Your task to perform on an android device: turn pop-ups on in chrome Image 0: 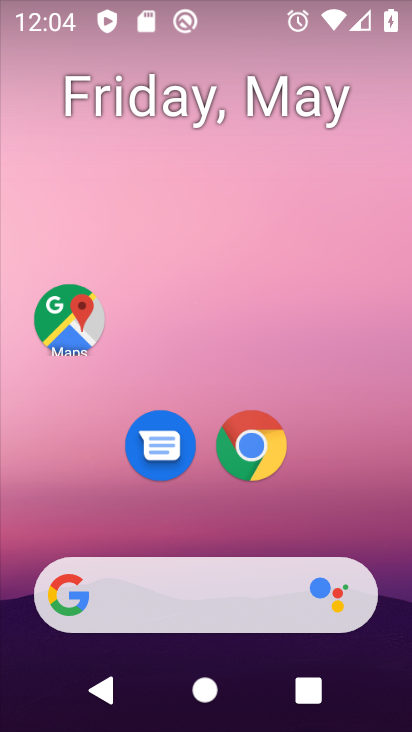
Step 0: click (253, 451)
Your task to perform on an android device: turn pop-ups on in chrome Image 1: 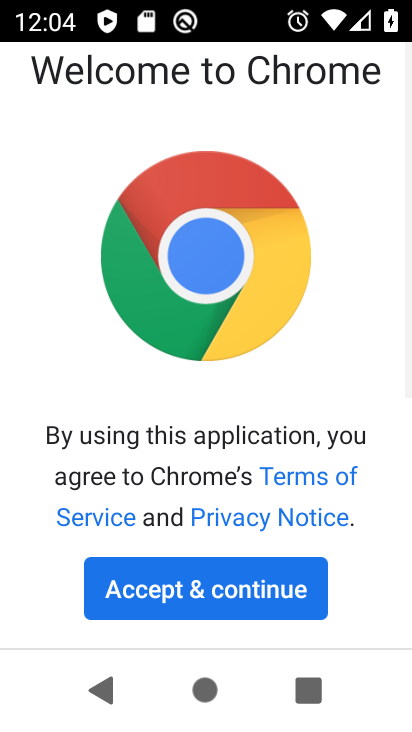
Step 1: click (193, 584)
Your task to perform on an android device: turn pop-ups on in chrome Image 2: 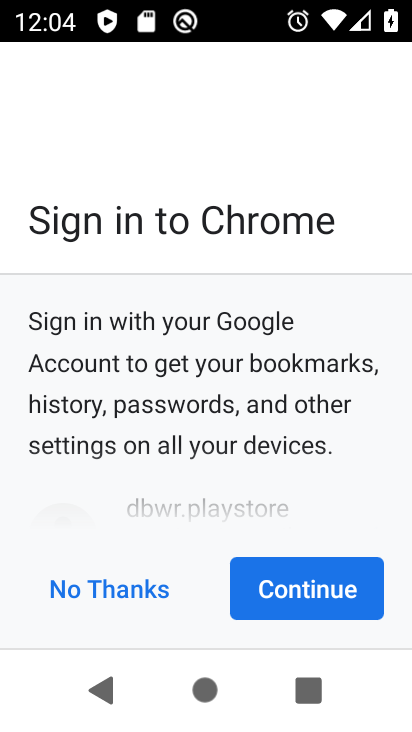
Step 2: click (104, 592)
Your task to perform on an android device: turn pop-ups on in chrome Image 3: 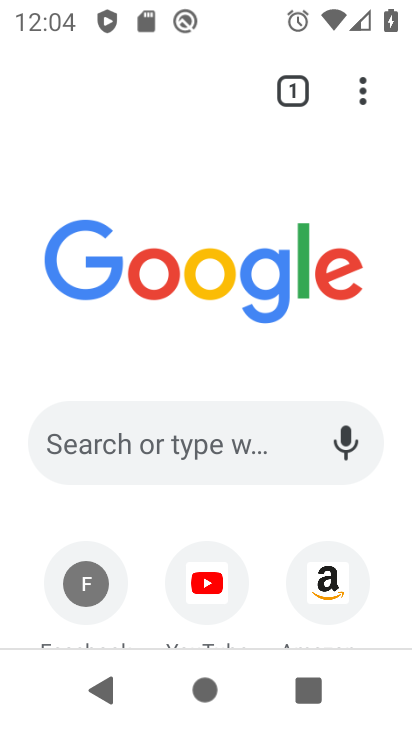
Step 3: click (365, 94)
Your task to perform on an android device: turn pop-ups on in chrome Image 4: 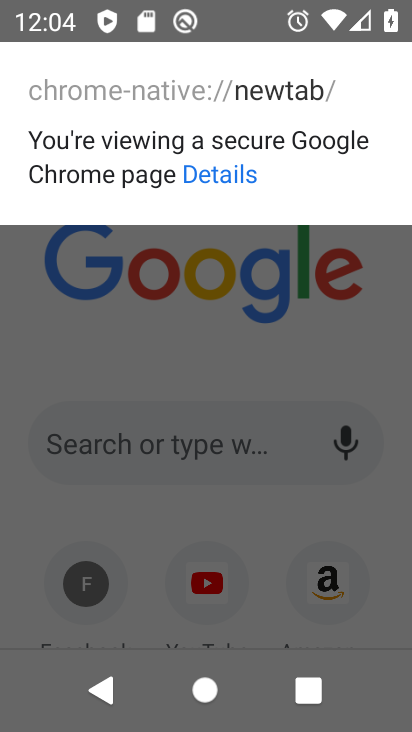
Step 4: click (407, 266)
Your task to perform on an android device: turn pop-ups on in chrome Image 5: 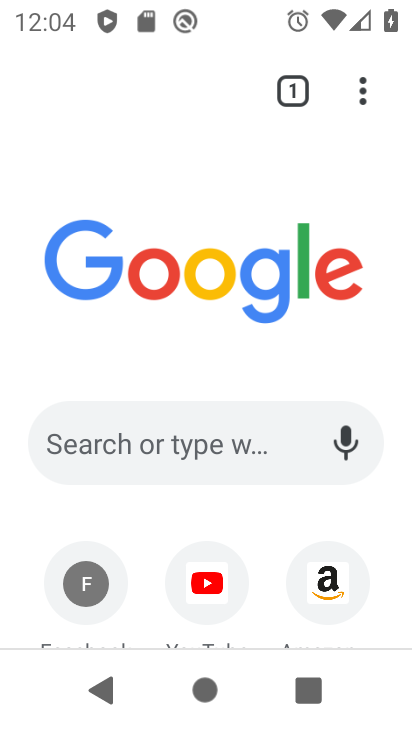
Step 5: drag from (366, 89) to (124, 479)
Your task to perform on an android device: turn pop-ups on in chrome Image 6: 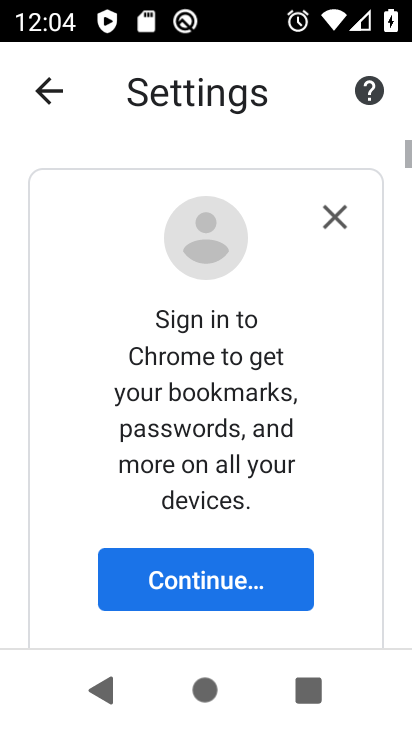
Step 6: drag from (325, 531) to (309, 58)
Your task to perform on an android device: turn pop-ups on in chrome Image 7: 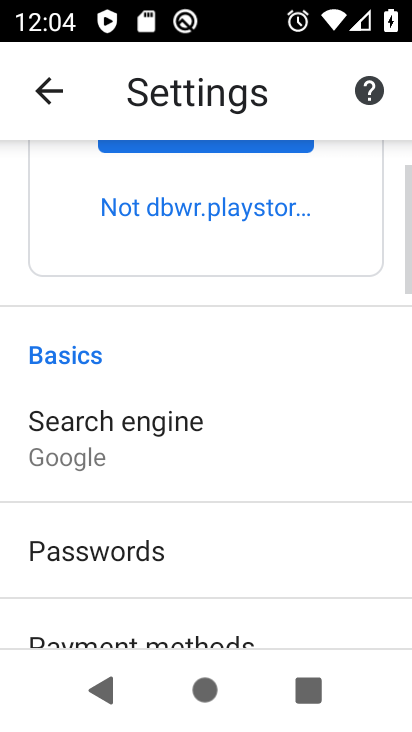
Step 7: drag from (212, 510) to (200, 91)
Your task to perform on an android device: turn pop-ups on in chrome Image 8: 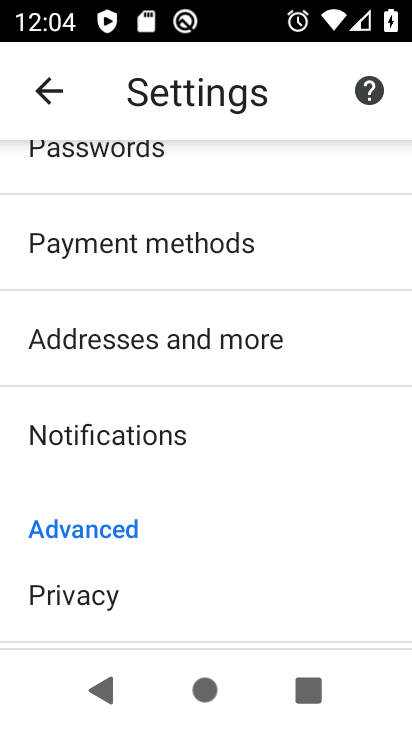
Step 8: drag from (160, 491) to (152, 195)
Your task to perform on an android device: turn pop-ups on in chrome Image 9: 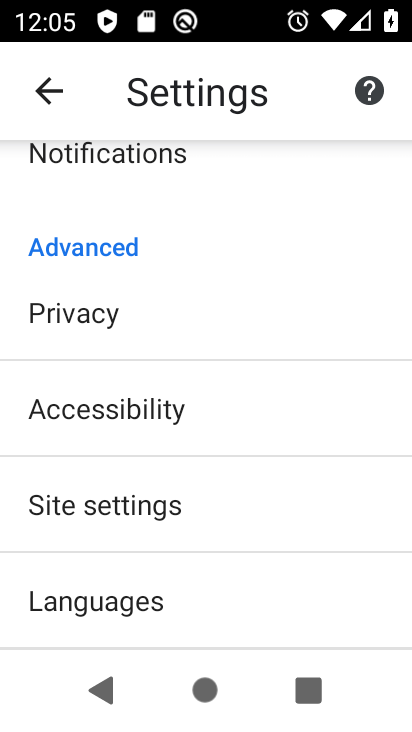
Step 9: click (99, 506)
Your task to perform on an android device: turn pop-ups on in chrome Image 10: 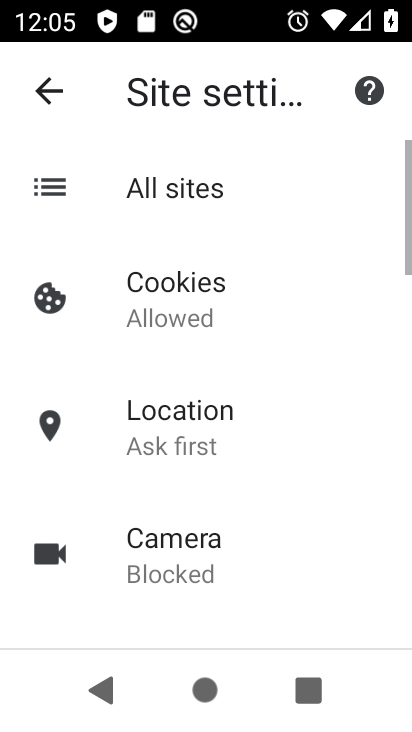
Step 10: drag from (292, 556) to (255, 113)
Your task to perform on an android device: turn pop-ups on in chrome Image 11: 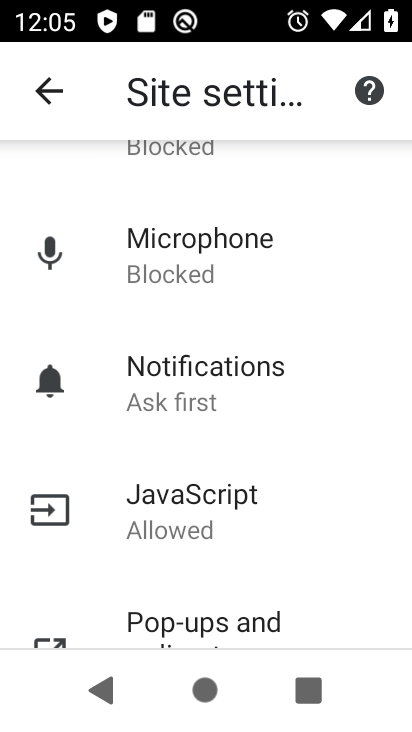
Step 11: drag from (255, 514) to (256, 261)
Your task to perform on an android device: turn pop-ups on in chrome Image 12: 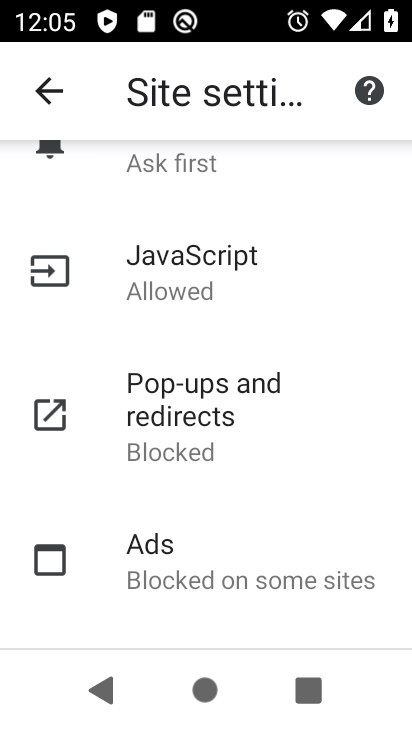
Step 12: click (162, 394)
Your task to perform on an android device: turn pop-ups on in chrome Image 13: 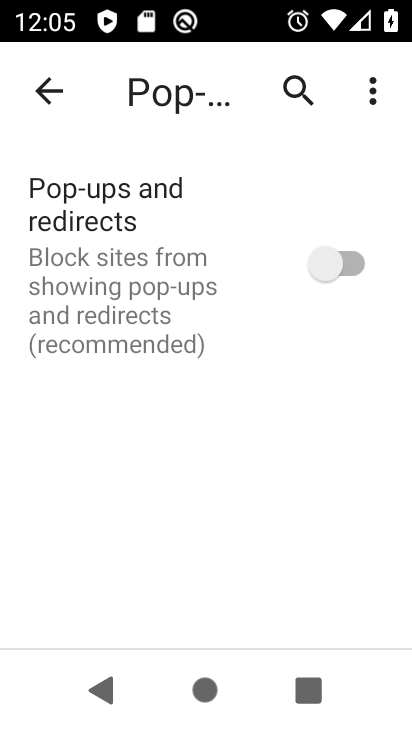
Step 13: click (329, 260)
Your task to perform on an android device: turn pop-ups on in chrome Image 14: 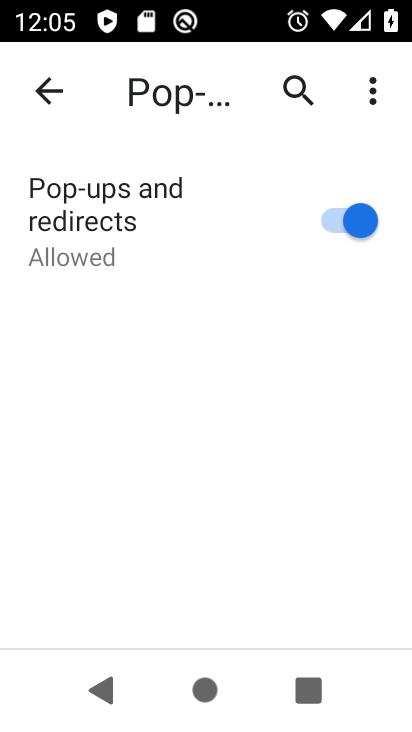
Step 14: task complete